Your task to perform on an android device: choose inbox layout in the gmail app Image 0: 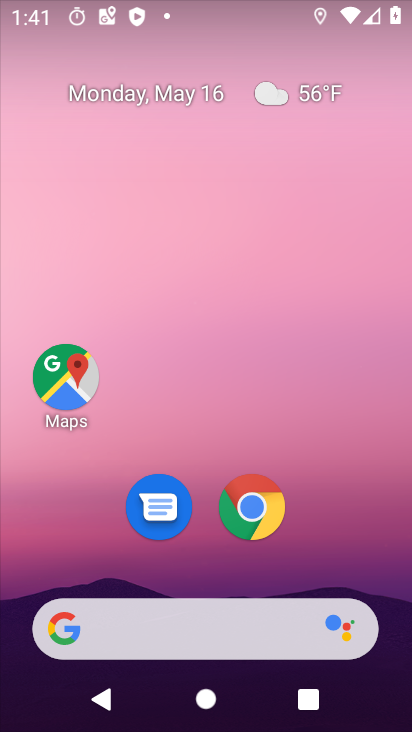
Step 0: drag from (227, 545) to (190, 30)
Your task to perform on an android device: choose inbox layout in the gmail app Image 1: 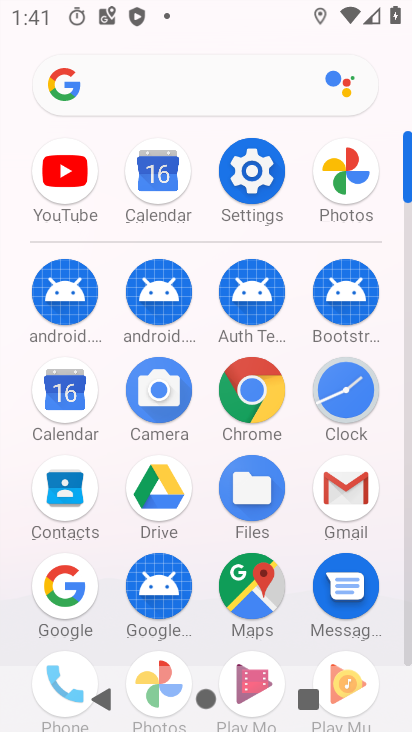
Step 1: click (338, 485)
Your task to perform on an android device: choose inbox layout in the gmail app Image 2: 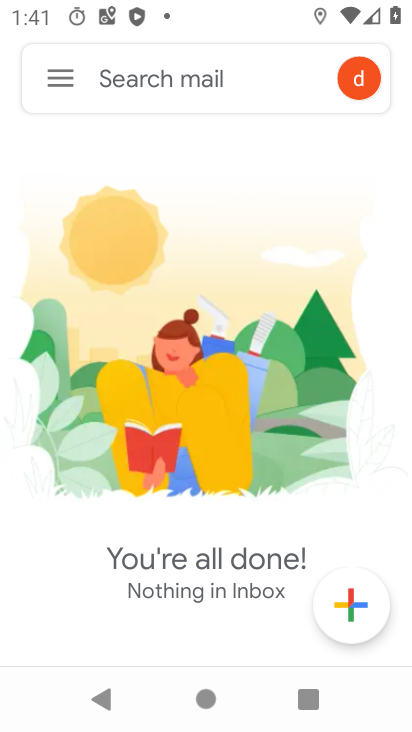
Step 2: click (58, 85)
Your task to perform on an android device: choose inbox layout in the gmail app Image 3: 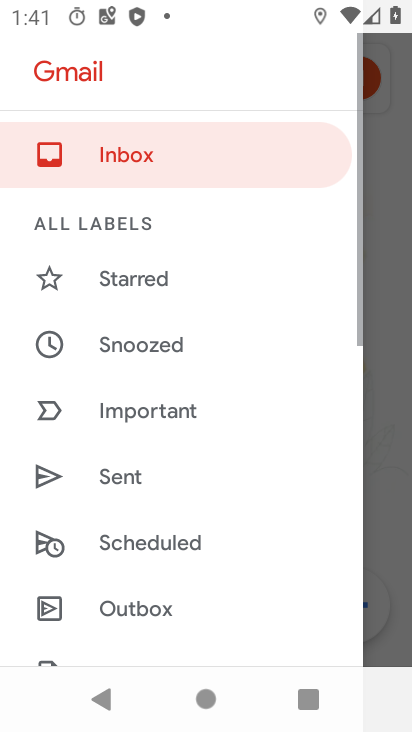
Step 3: drag from (166, 581) to (176, 184)
Your task to perform on an android device: choose inbox layout in the gmail app Image 4: 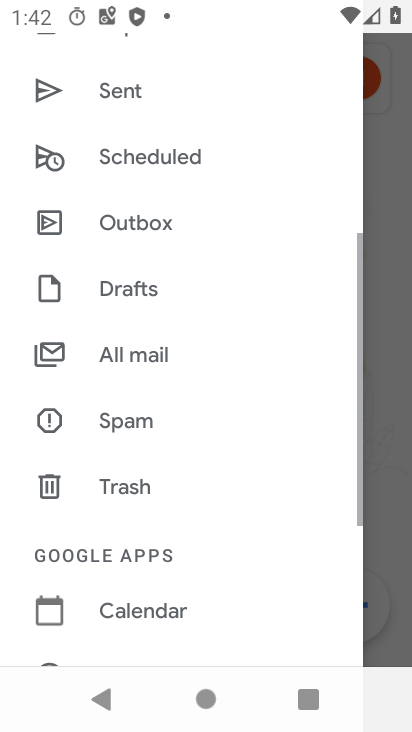
Step 4: drag from (229, 551) to (240, 174)
Your task to perform on an android device: choose inbox layout in the gmail app Image 5: 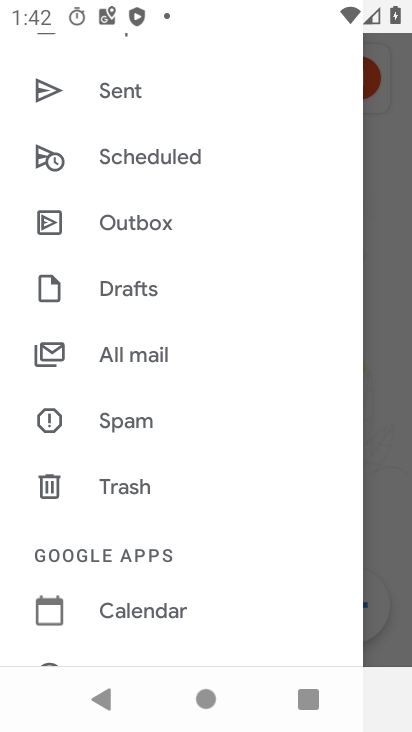
Step 5: drag from (215, 553) to (179, 150)
Your task to perform on an android device: choose inbox layout in the gmail app Image 6: 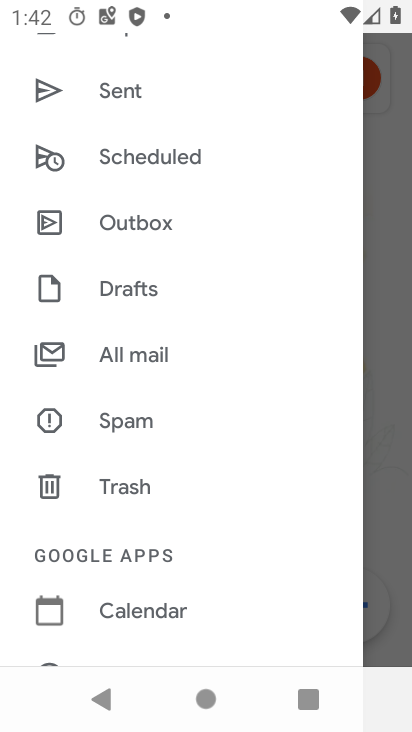
Step 6: drag from (153, 531) to (179, 292)
Your task to perform on an android device: choose inbox layout in the gmail app Image 7: 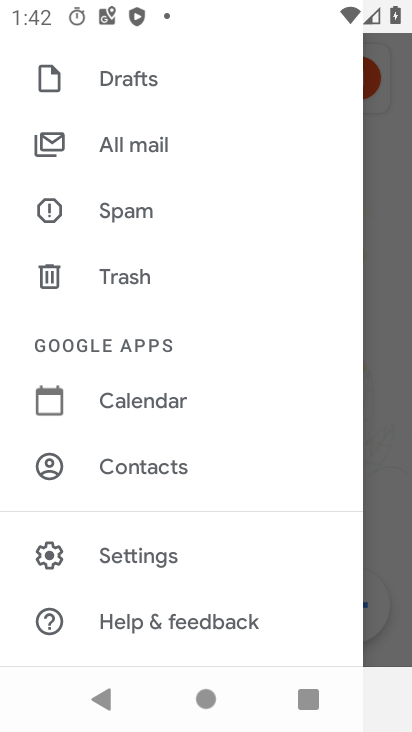
Step 7: click (171, 552)
Your task to perform on an android device: choose inbox layout in the gmail app Image 8: 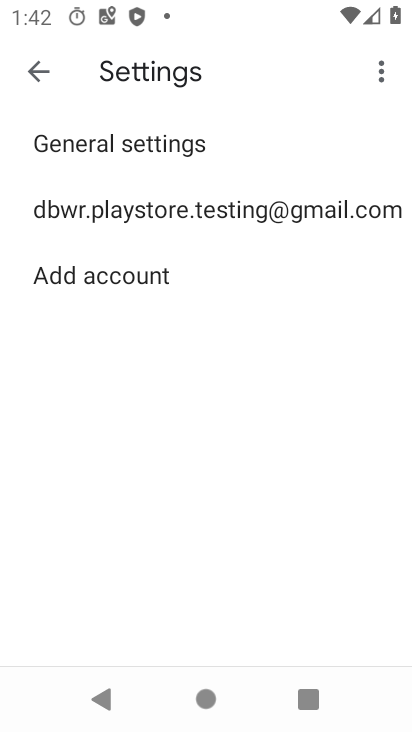
Step 8: click (155, 213)
Your task to perform on an android device: choose inbox layout in the gmail app Image 9: 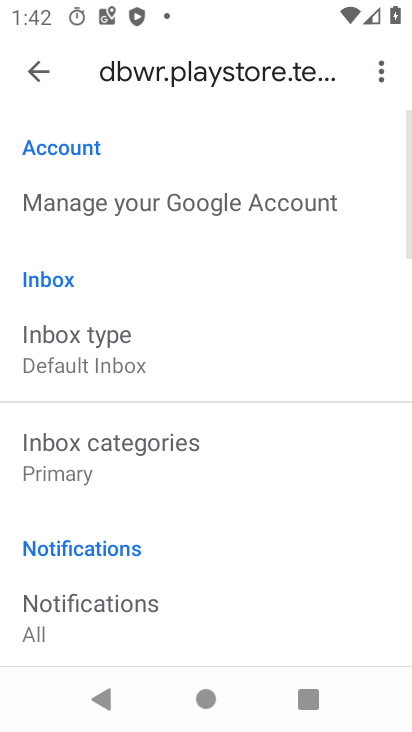
Step 9: drag from (146, 543) to (150, 204)
Your task to perform on an android device: choose inbox layout in the gmail app Image 10: 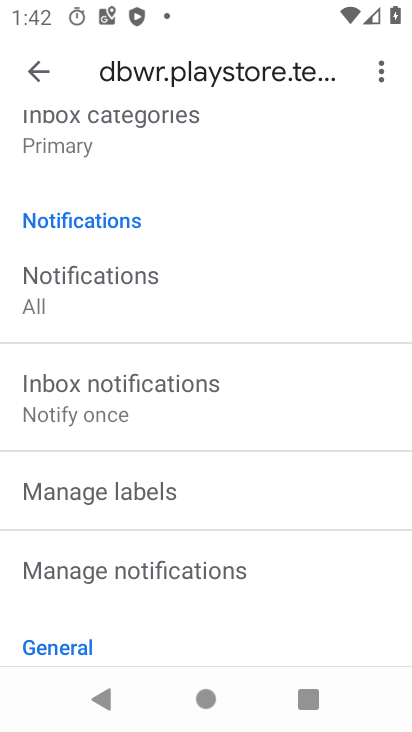
Step 10: drag from (170, 478) to (164, 235)
Your task to perform on an android device: choose inbox layout in the gmail app Image 11: 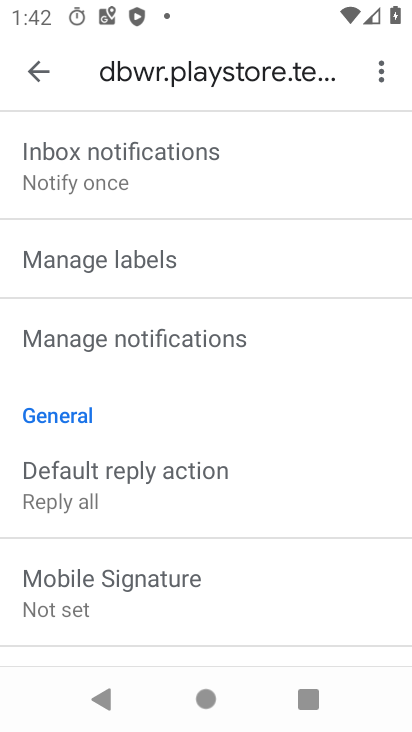
Step 11: drag from (164, 235) to (160, 503)
Your task to perform on an android device: choose inbox layout in the gmail app Image 12: 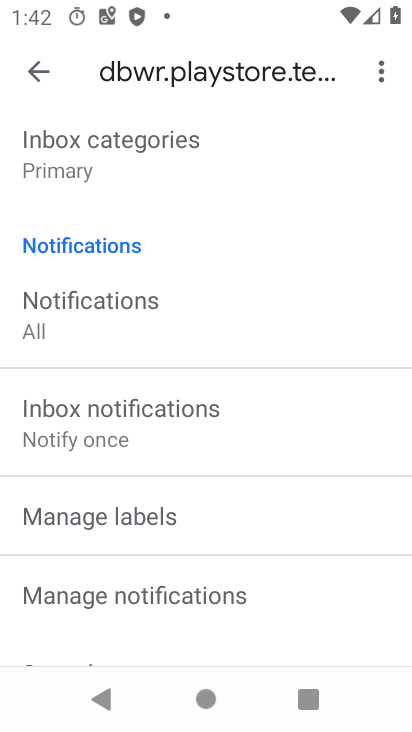
Step 12: drag from (150, 214) to (150, 530)
Your task to perform on an android device: choose inbox layout in the gmail app Image 13: 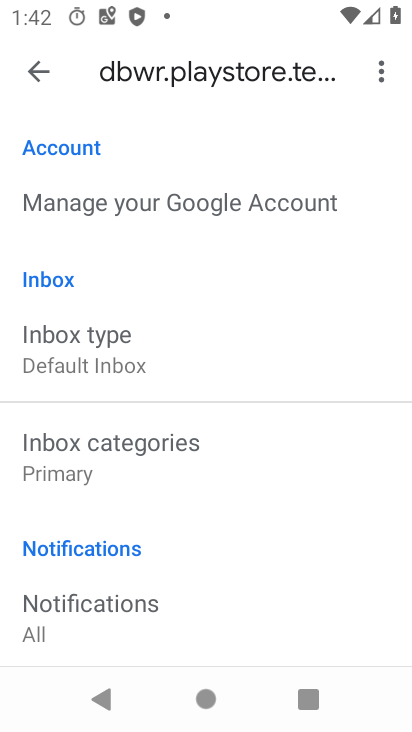
Step 13: click (132, 239)
Your task to perform on an android device: choose inbox layout in the gmail app Image 14: 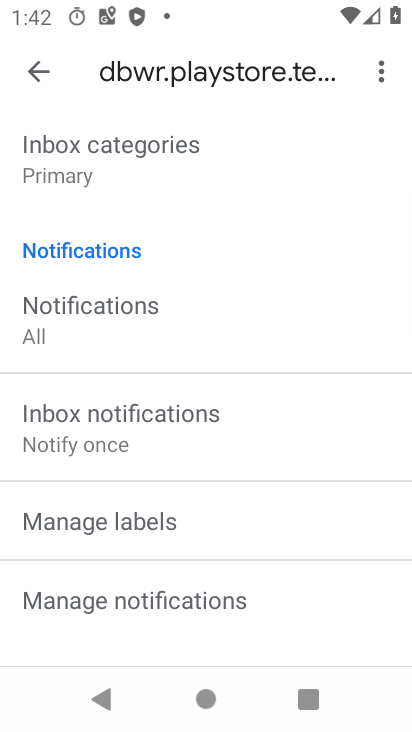
Step 14: drag from (177, 511) to (180, 230)
Your task to perform on an android device: choose inbox layout in the gmail app Image 15: 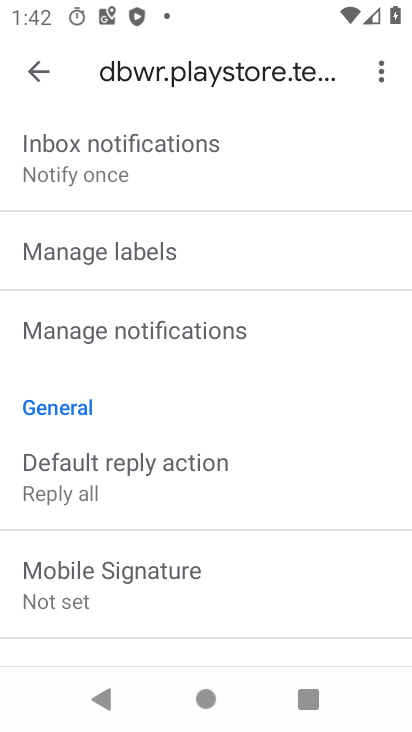
Step 15: drag from (178, 568) to (169, 276)
Your task to perform on an android device: choose inbox layout in the gmail app Image 16: 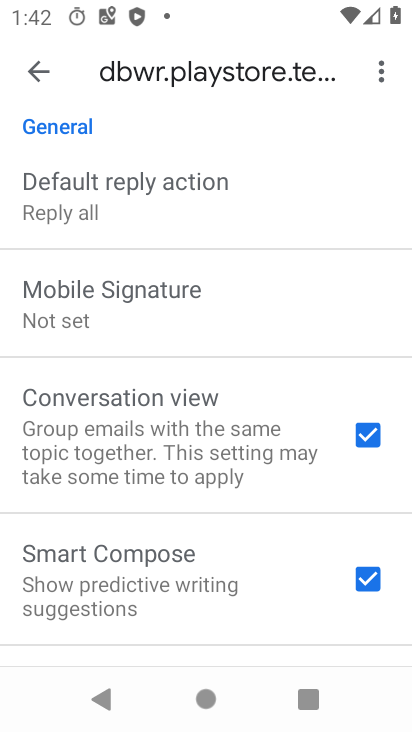
Step 16: drag from (151, 140) to (167, 459)
Your task to perform on an android device: choose inbox layout in the gmail app Image 17: 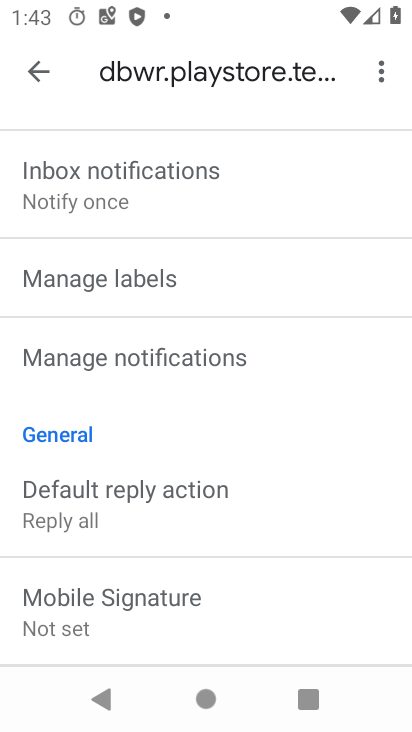
Step 17: drag from (186, 284) to (240, 570)
Your task to perform on an android device: choose inbox layout in the gmail app Image 18: 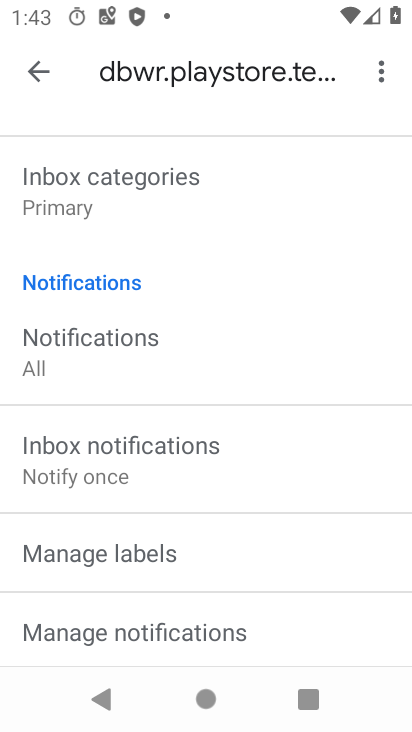
Step 18: drag from (146, 272) to (158, 442)
Your task to perform on an android device: choose inbox layout in the gmail app Image 19: 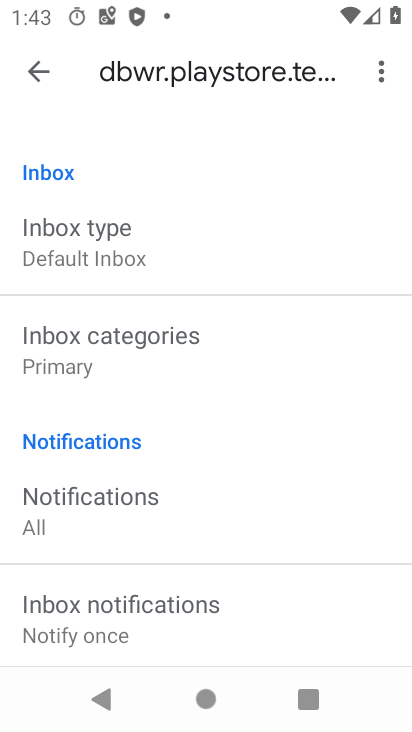
Step 19: drag from (140, 517) to (115, 191)
Your task to perform on an android device: choose inbox layout in the gmail app Image 20: 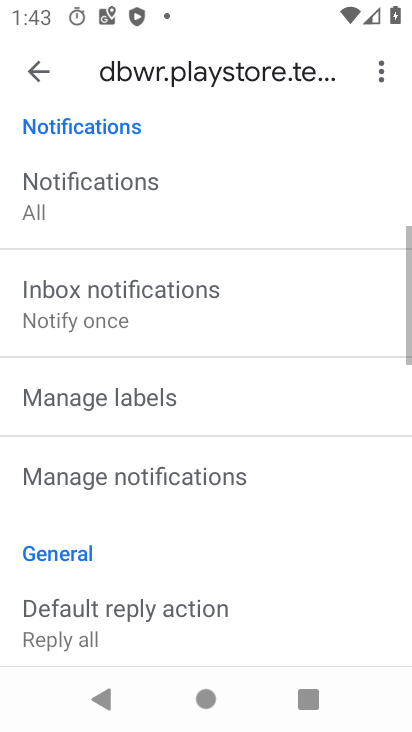
Step 20: drag from (115, 191) to (133, 520)
Your task to perform on an android device: choose inbox layout in the gmail app Image 21: 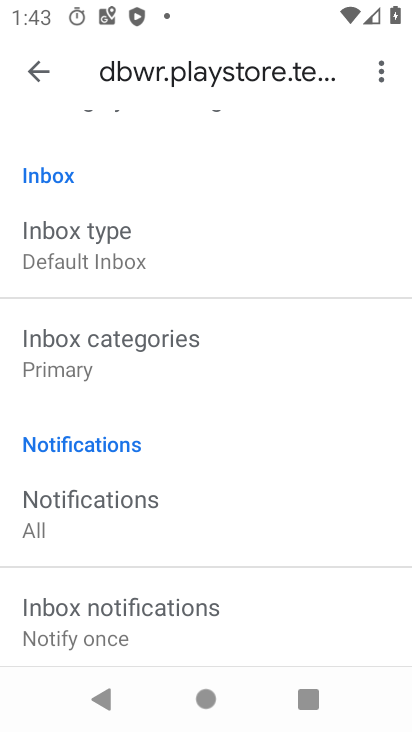
Step 21: click (109, 238)
Your task to perform on an android device: choose inbox layout in the gmail app Image 22: 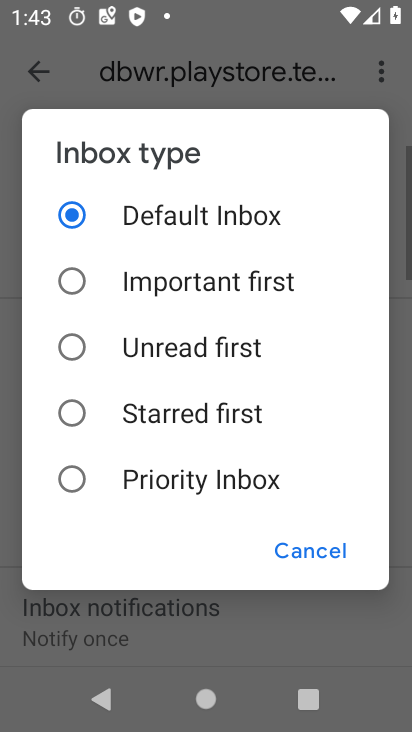
Step 22: click (65, 275)
Your task to perform on an android device: choose inbox layout in the gmail app Image 23: 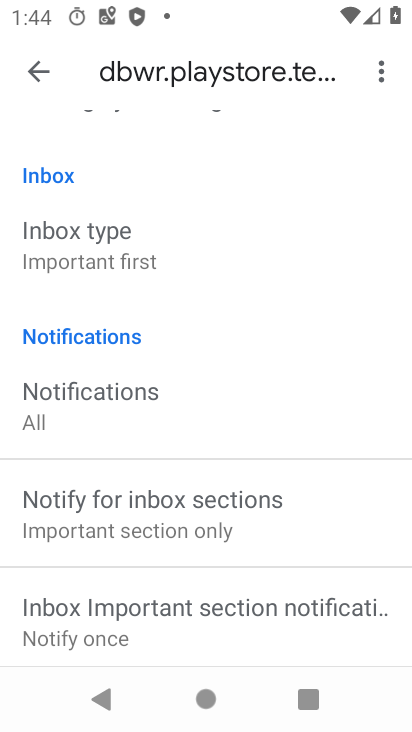
Step 23: task complete